Your task to perform on an android device: check out phone information Image 0: 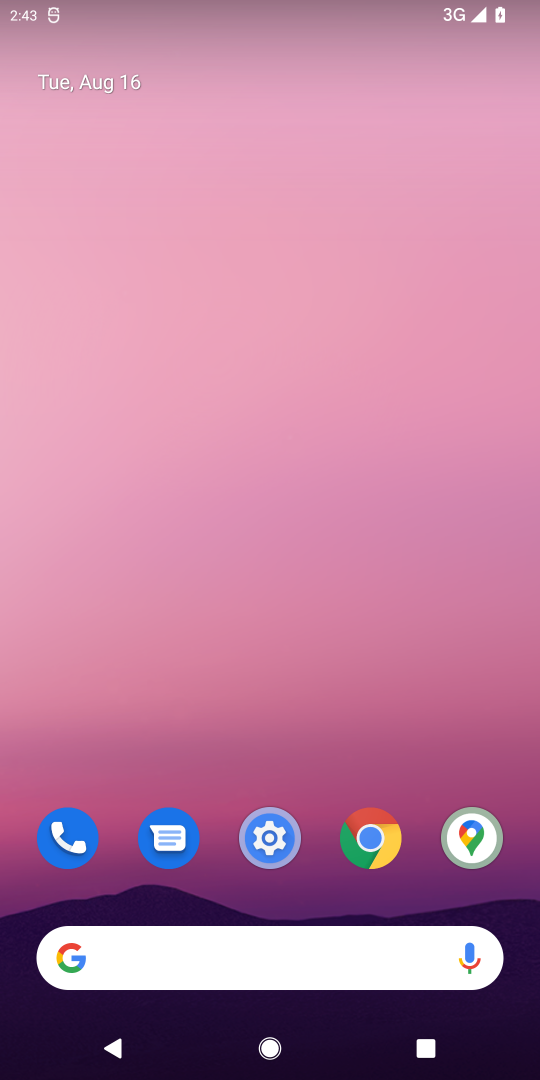
Step 0: press home button
Your task to perform on an android device: check out phone information Image 1: 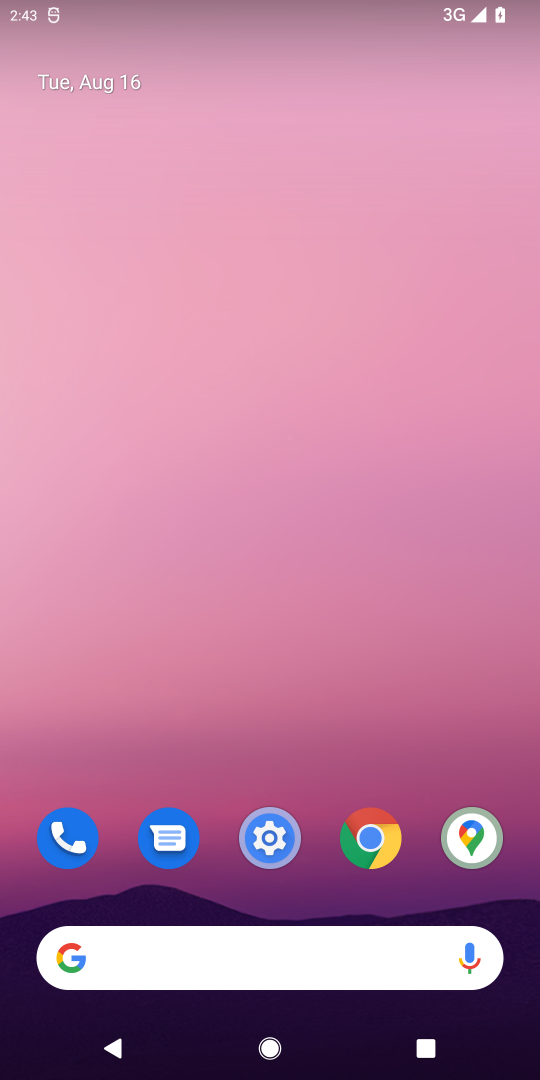
Step 1: click (274, 853)
Your task to perform on an android device: check out phone information Image 2: 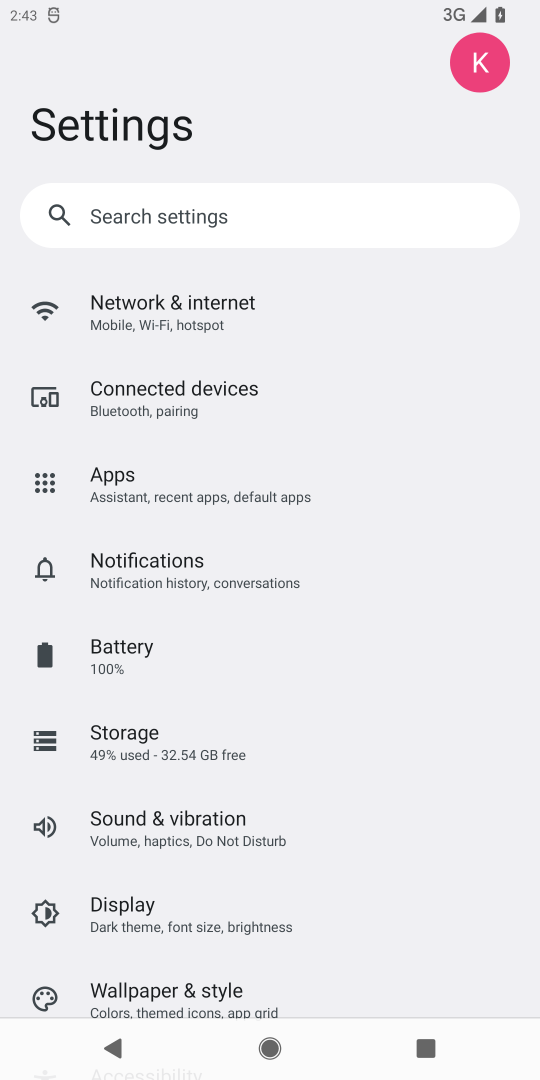
Step 2: drag from (308, 965) to (321, 282)
Your task to perform on an android device: check out phone information Image 3: 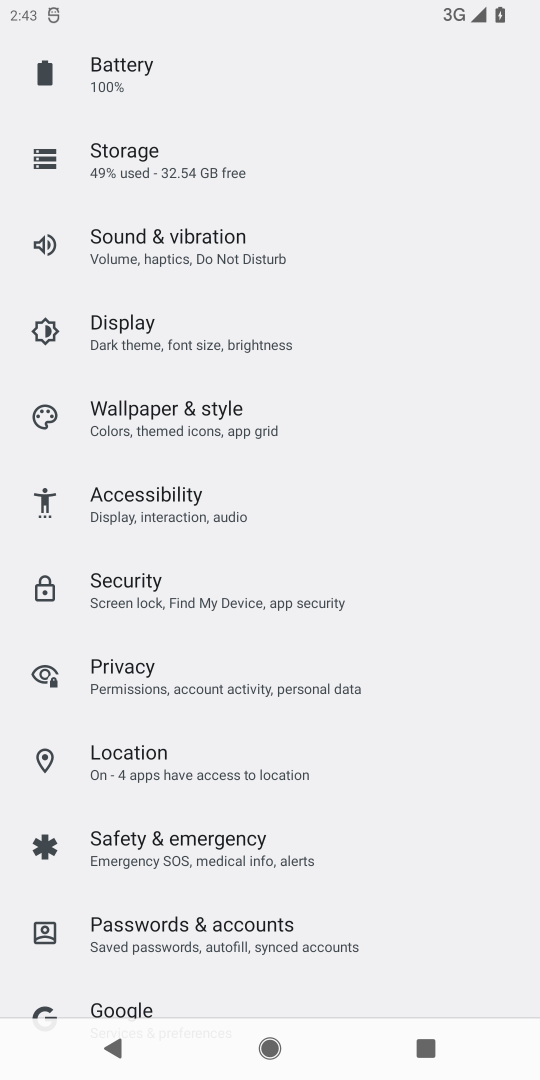
Step 3: drag from (173, 986) to (145, 468)
Your task to perform on an android device: check out phone information Image 4: 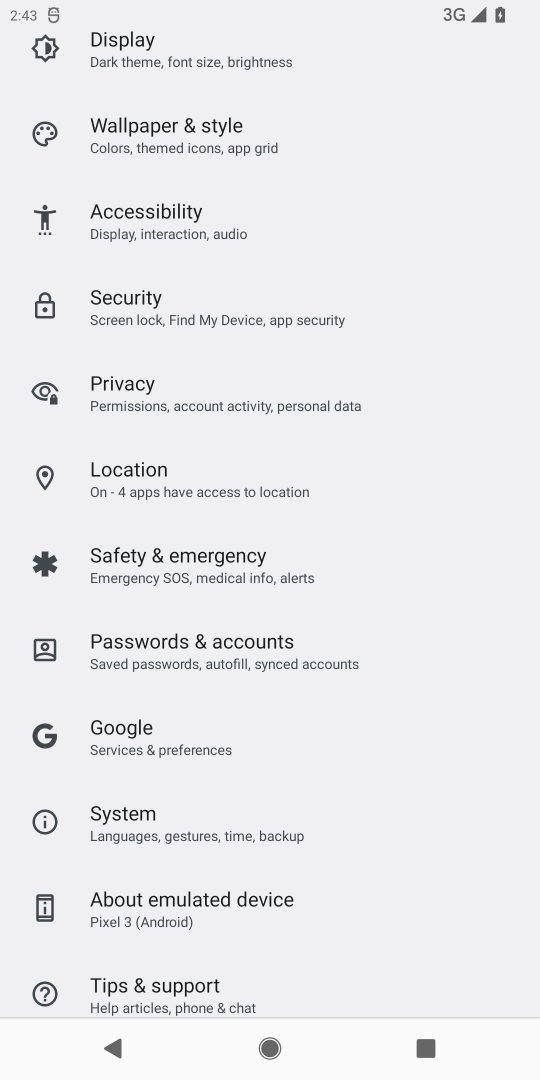
Step 4: drag from (146, 936) to (126, 379)
Your task to perform on an android device: check out phone information Image 5: 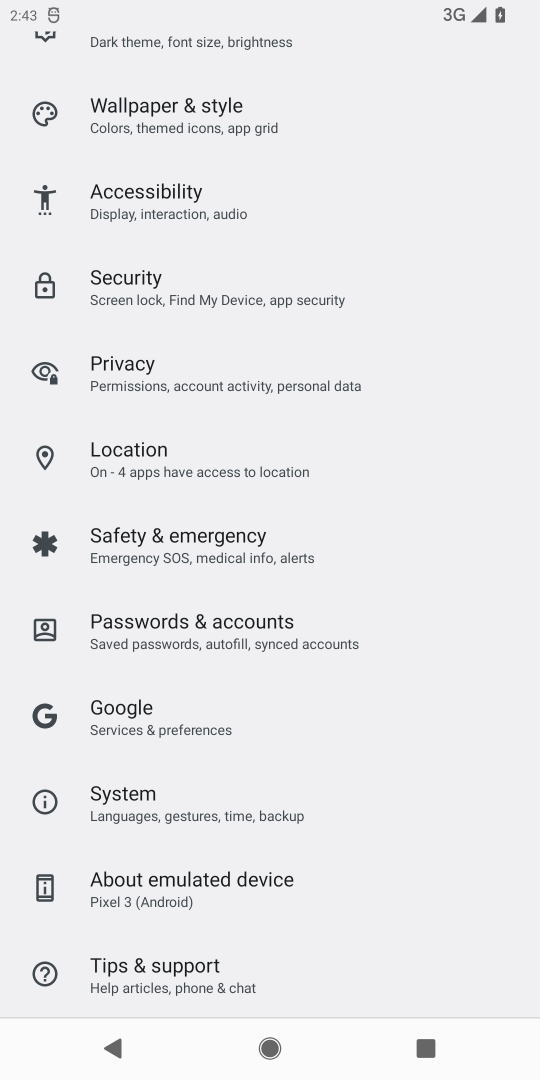
Step 5: drag from (184, 942) to (147, 583)
Your task to perform on an android device: check out phone information Image 6: 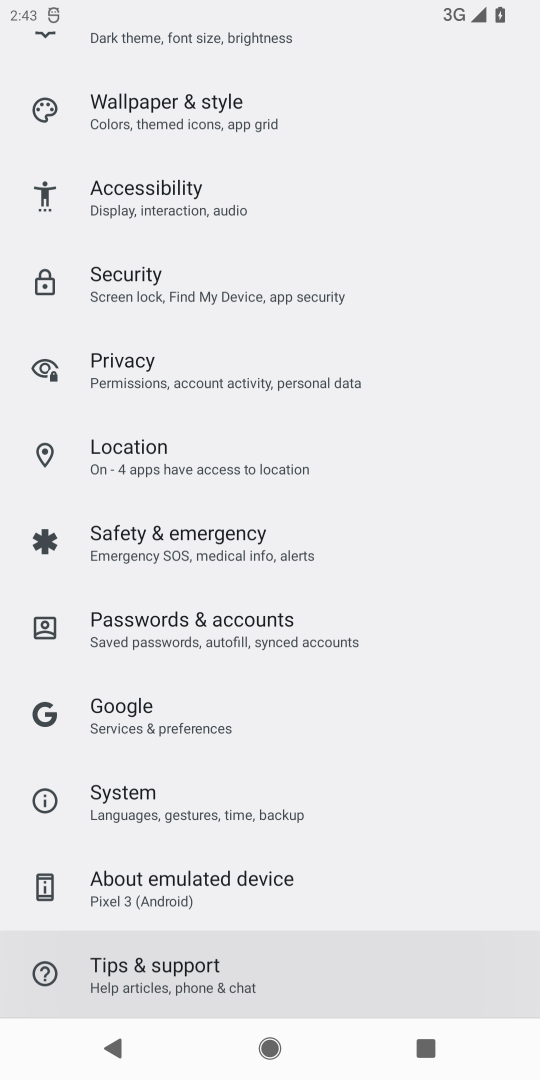
Step 6: click (175, 877)
Your task to perform on an android device: check out phone information Image 7: 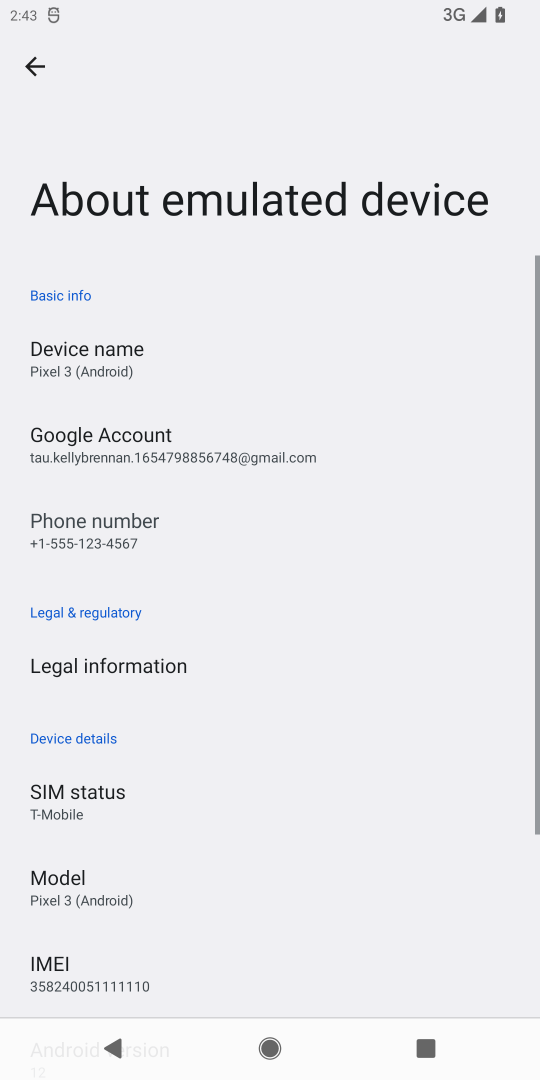
Step 7: task complete